Your task to perform on an android device: find snoozed emails in the gmail app Image 0: 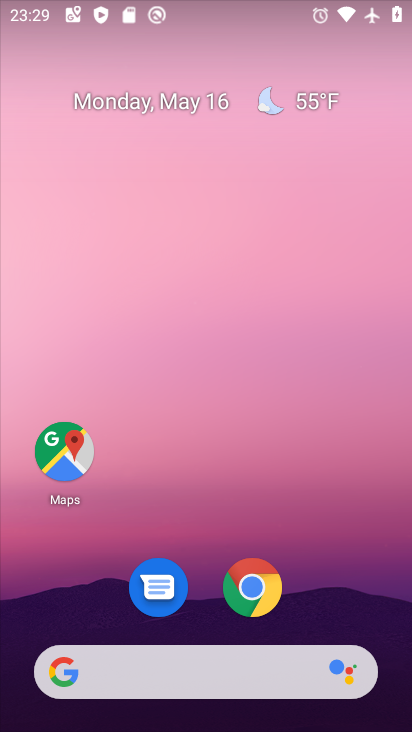
Step 0: drag from (302, 575) to (221, 23)
Your task to perform on an android device: find snoozed emails in the gmail app Image 1: 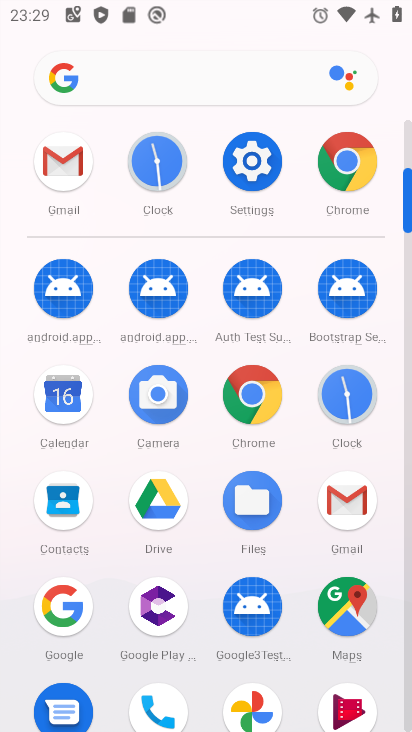
Step 1: drag from (15, 582) to (6, 267)
Your task to perform on an android device: find snoozed emails in the gmail app Image 2: 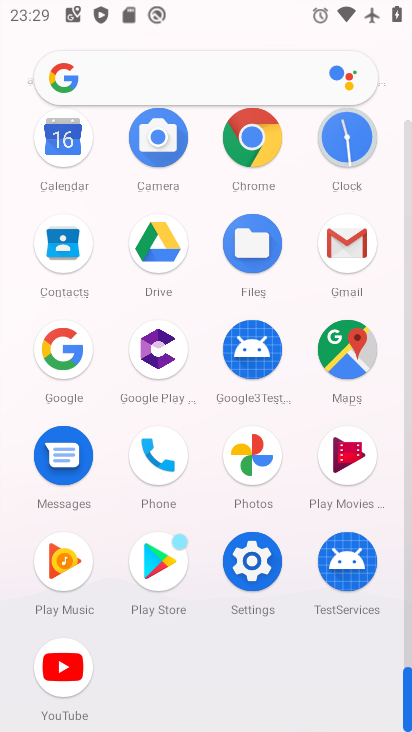
Step 2: click (351, 236)
Your task to perform on an android device: find snoozed emails in the gmail app Image 3: 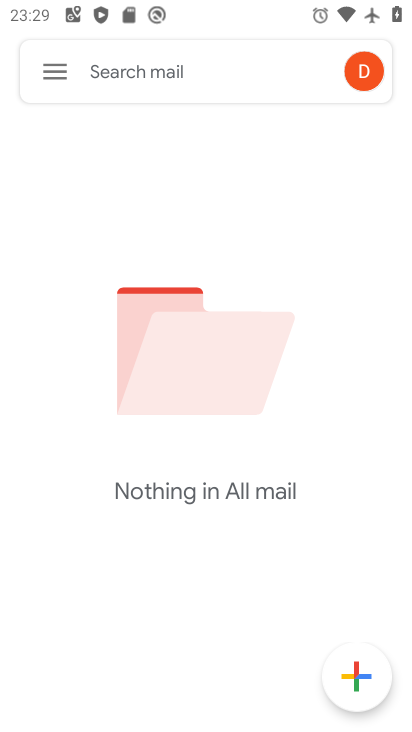
Step 3: click (70, 69)
Your task to perform on an android device: find snoozed emails in the gmail app Image 4: 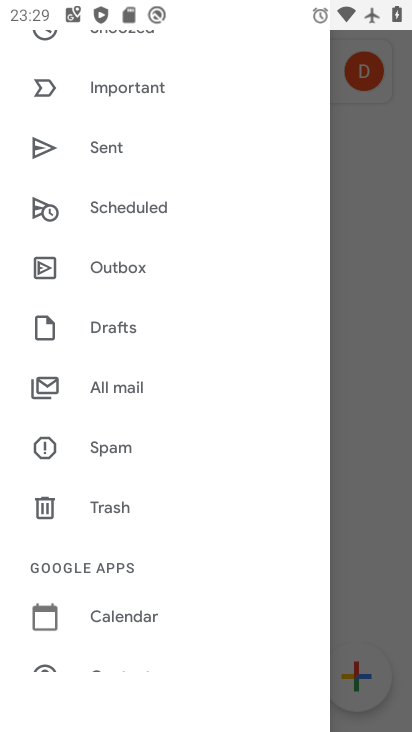
Step 4: drag from (231, 167) to (238, 518)
Your task to perform on an android device: find snoozed emails in the gmail app Image 5: 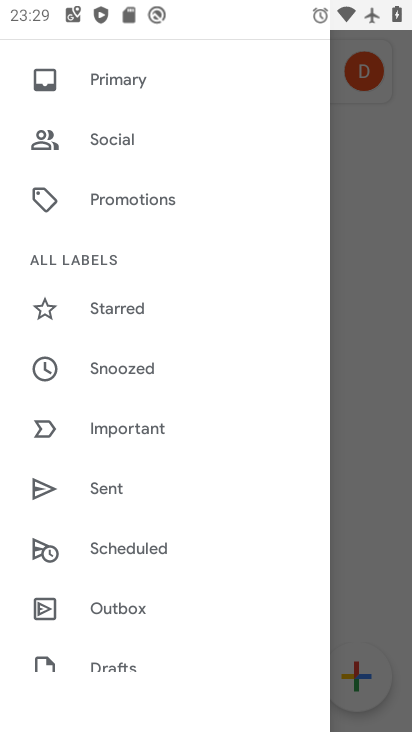
Step 5: drag from (190, 124) to (197, 524)
Your task to perform on an android device: find snoozed emails in the gmail app Image 6: 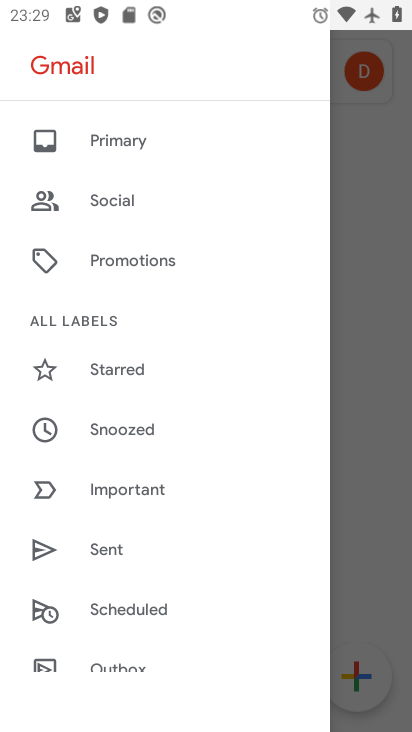
Step 6: click (155, 433)
Your task to perform on an android device: find snoozed emails in the gmail app Image 7: 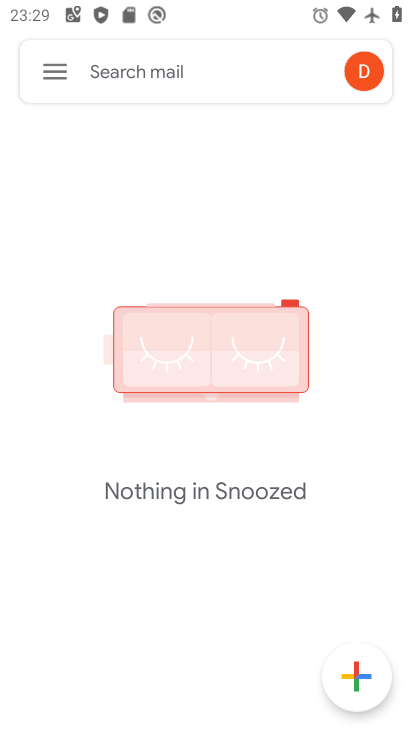
Step 7: task complete